Your task to perform on an android device: turn off data saver in the chrome app Image 0: 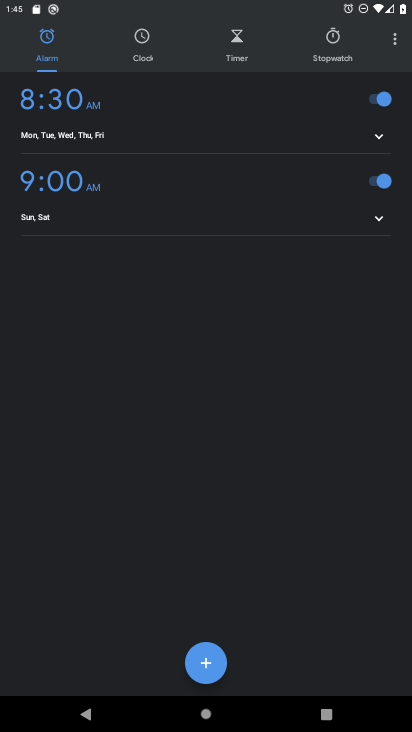
Step 0: press home button
Your task to perform on an android device: turn off data saver in the chrome app Image 1: 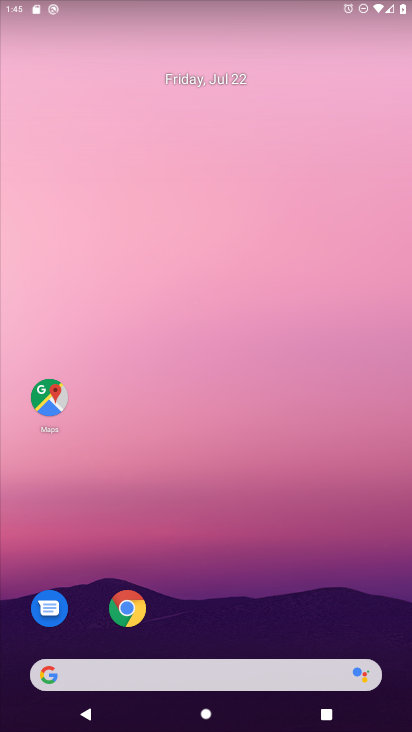
Step 1: drag from (325, 562) to (212, 51)
Your task to perform on an android device: turn off data saver in the chrome app Image 2: 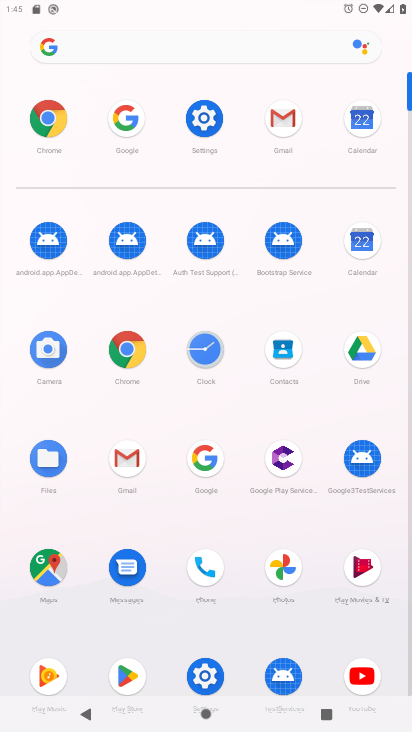
Step 2: click (114, 356)
Your task to perform on an android device: turn off data saver in the chrome app Image 3: 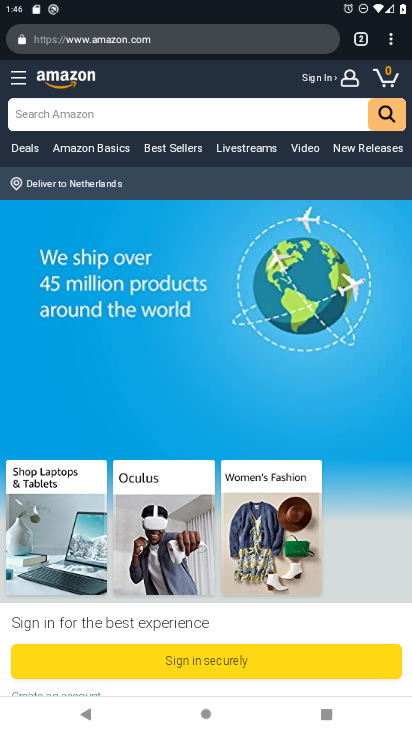
Step 3: press back button
Your task to perform on an android device: turn off data saver in the chrome app Image 4: 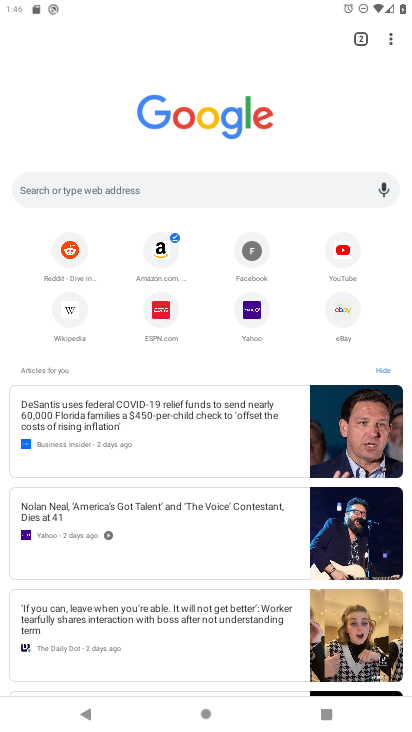
Step 4: click (389, 40)
Your task to perform on an android device: turn off data saver in the chrome app Image 5: 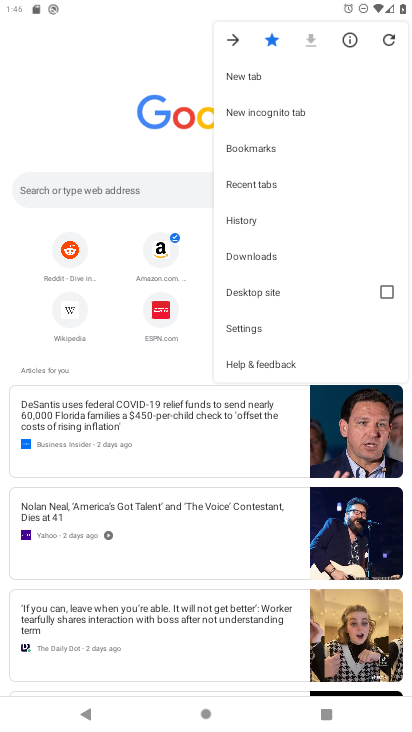
Step 5: click (264, 329)
Your task to perform on an android device: turn off data saver in the chrome app Image 6: 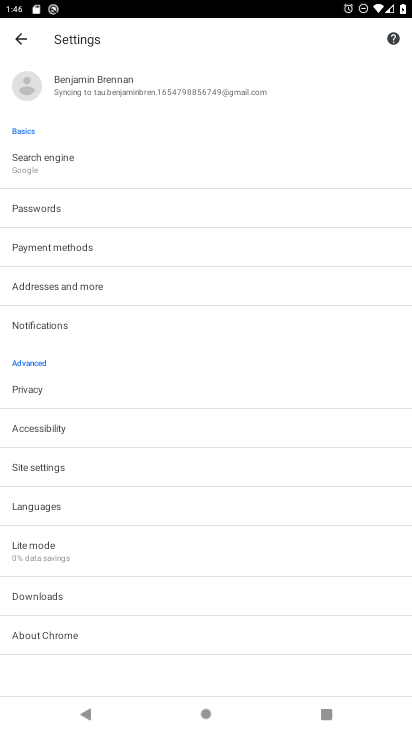
Step 6: click (55, 554)
Your task to perform on an android device: turn off data saver in the chrome app Image 7: 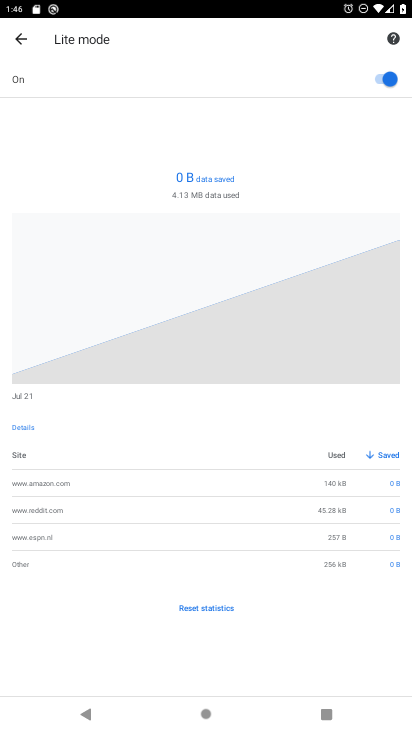
Step 7: click (384, 77)
Your task to perform on an android device: turn off data saver in the chrome app Image 8: 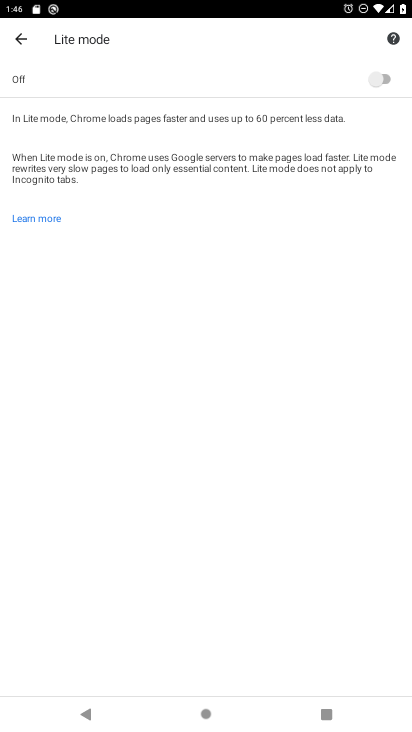
Step 8: task complete